Your task to perform on an android device: change your default location settings in chrome Image 0: 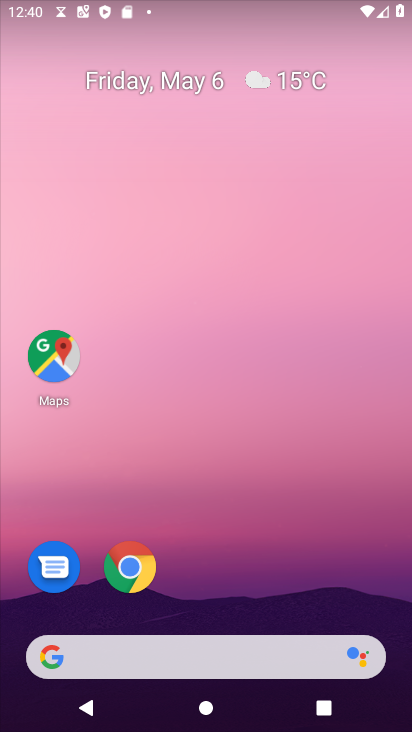
Step 0: drag from (314, 583) to (330, 62)
Your task to perform on an android device: change your default location settings in chrome Image 1: 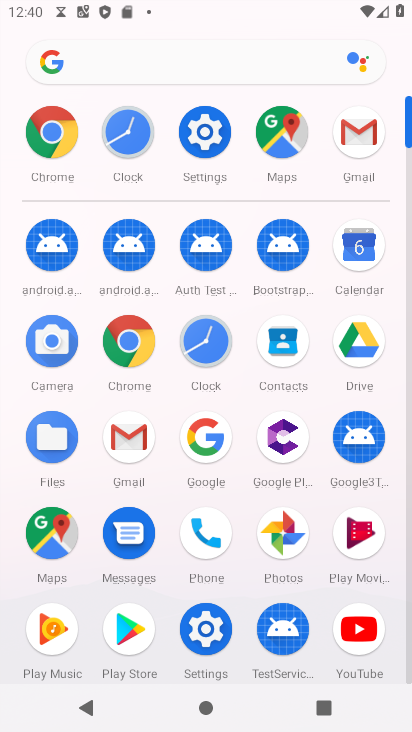
Step 1: click (123, 353)
Your task to perform on an android device: change your default location settings in chrome Image 2: 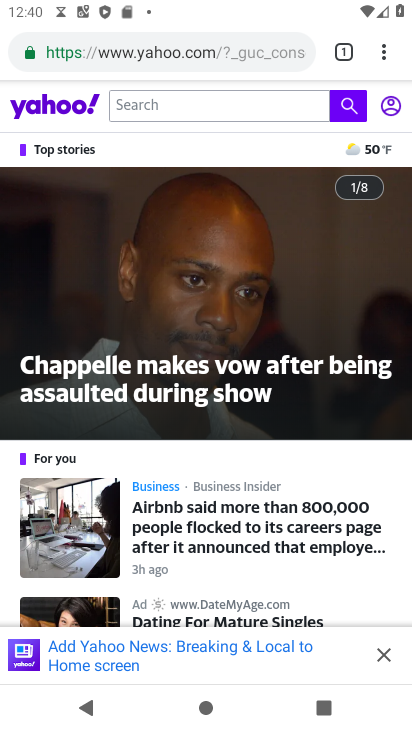
Step 2: drag from (386, 61) to (199, 603)
Your task to perform on an android device: change your default location settings in chrome Image 3: 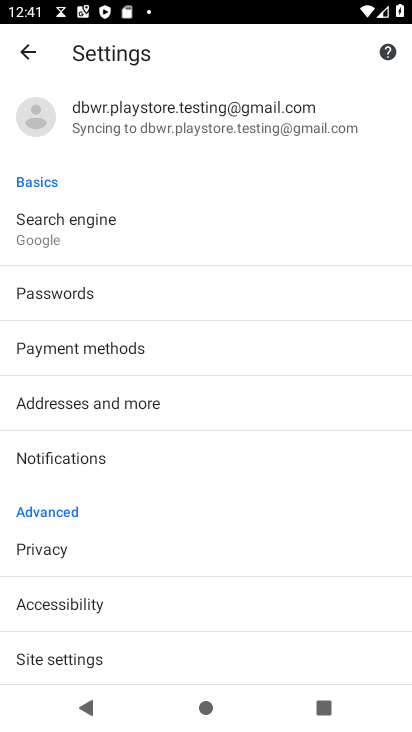
Step 3: drag from (184, 607) to (235, 193)
Your task to perform on an android device: change your default location settings in chrome Image 4: 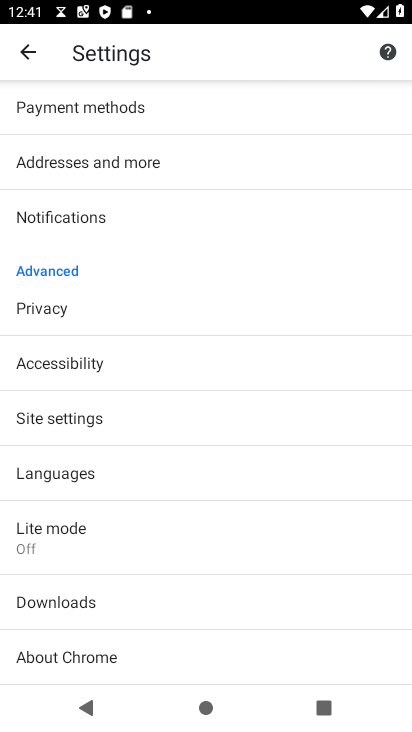
Step 4: drag from (142, 244) to (172, 520)
Your task to perform on an android device: change your default location settings in chrome Image 5: 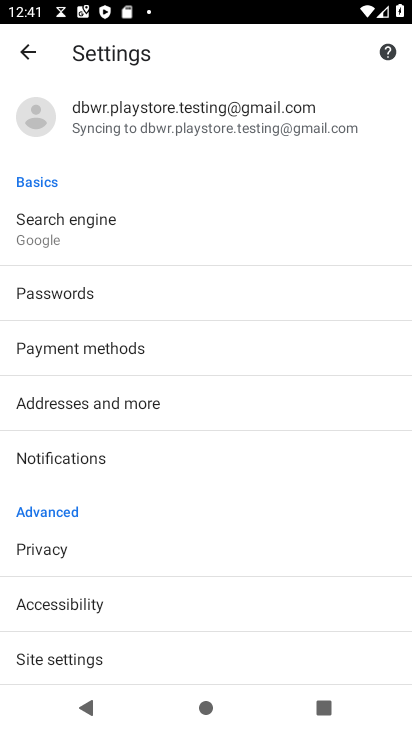
Step 5: drag from (245, 539) to (238, 164)
Your task to perform on an android device: change your default location settings in chrome Image 6: 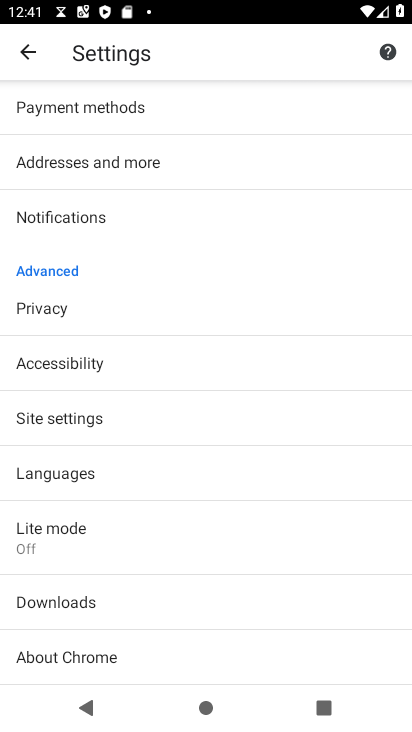
Step 6: drag from (98, 609) to (177, 243)
Your task to perform on an android device: change your default location settings in chrome Image 7: 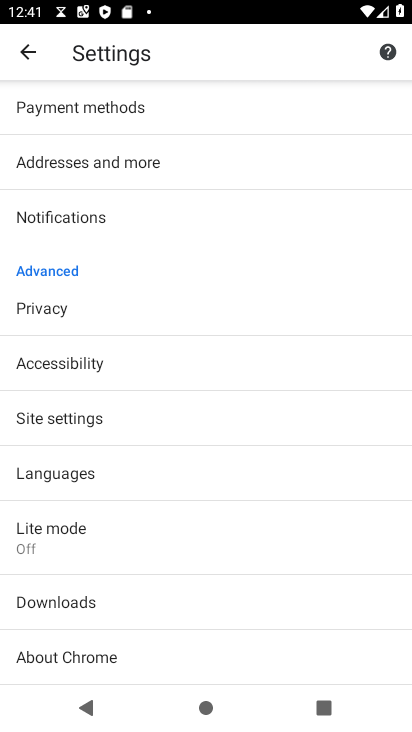
Step 7: drag from (177, 243) to (145, 634)
Your task to perform on an android device: change your default location settings in chrome Image 8: 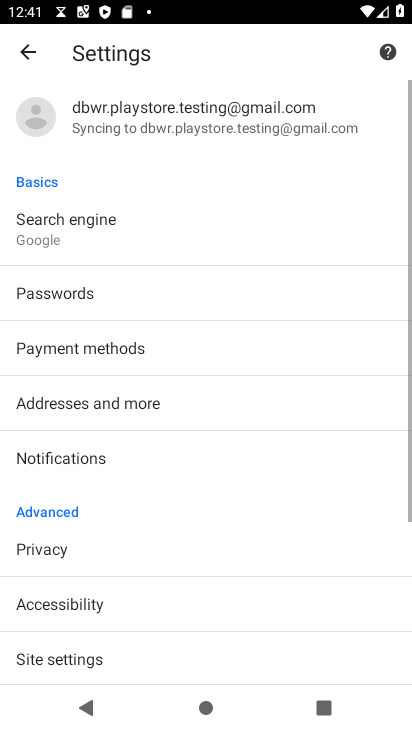
Step 8: drag from (186, 236) to (163, 580)
Your task to perform on an android device: change your default location settings in chrome Image 9: 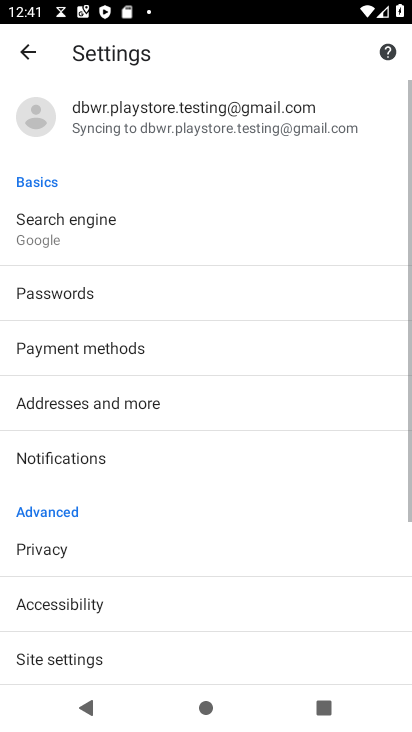
Step 9: drag from (190, 262) to (162, 583)
Your task to perform on an android device: change your default location settings in chrome Image 10: 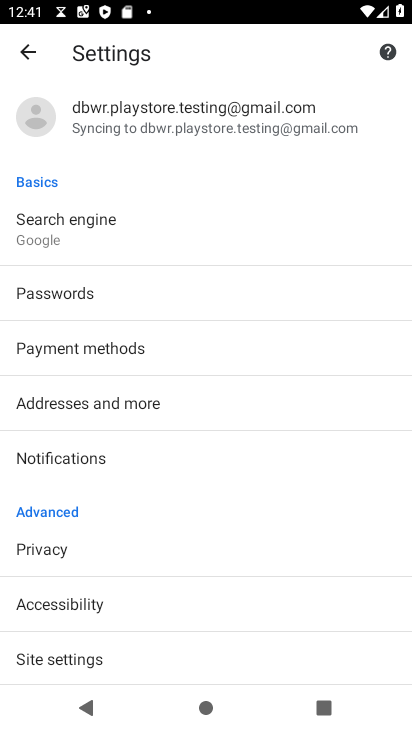
Step 10: click (68, 666)
Your task to perform on an android device: change your default location settings in chrome Image 11: 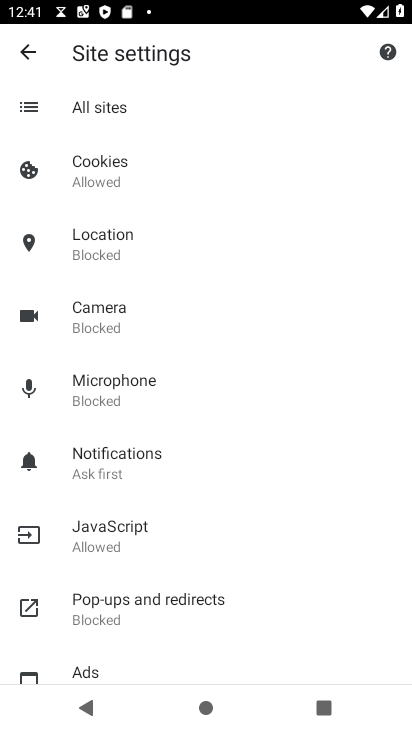
Step 11: click (99, 239)
Your task to perform on an android device: change your default location settings in chrome Image 12: 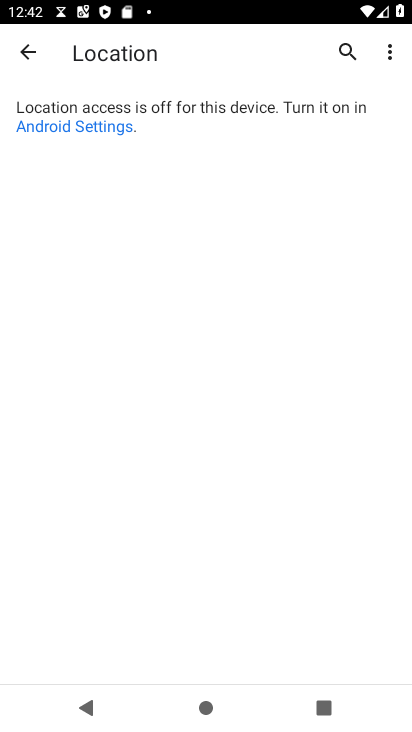
Step 12: task complete